Your task to perform on an android device: install app "Firefox Browser" Image 0: 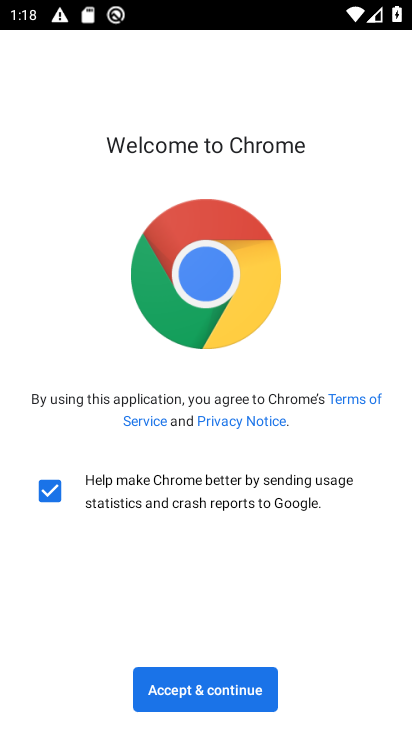
Step 0: press home button
Your task to perform on an android device: install app "Firefox Browser" Image 1: 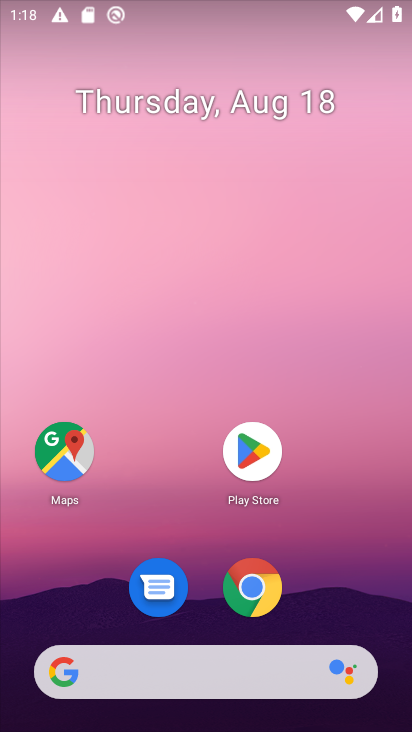
Step 1: click (239, 452)
Your task to perform on an android device: install app "Firefox Browser" Image 2: 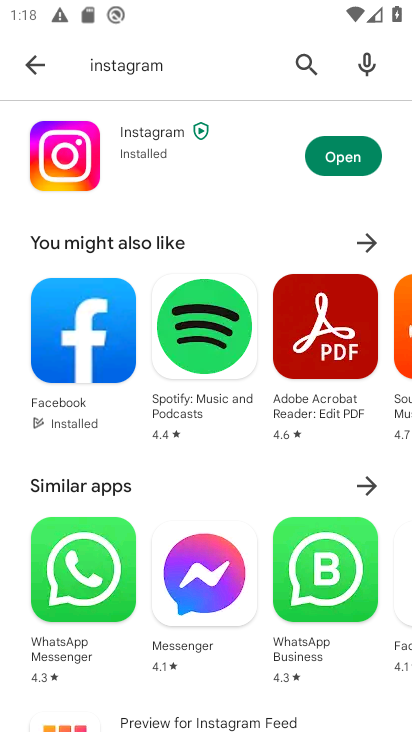
Step 2: click (302, 58)
Your task to perform on an android device: install app "Firefox Browser" Image 3: 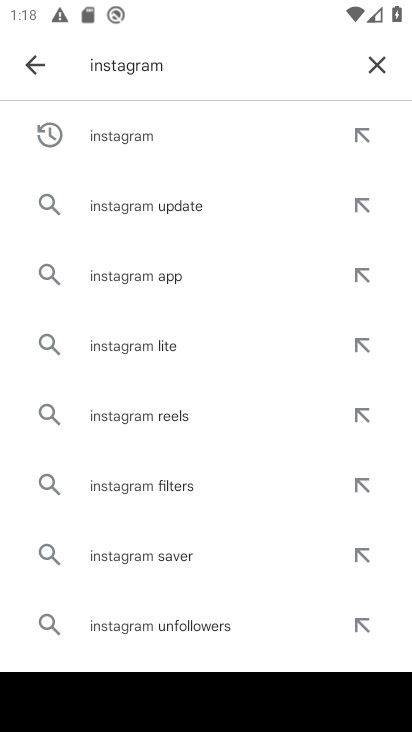
Step 3: click (381, 65)
Your task to perform on an android device: install app "Firefox Browser" Image 4: 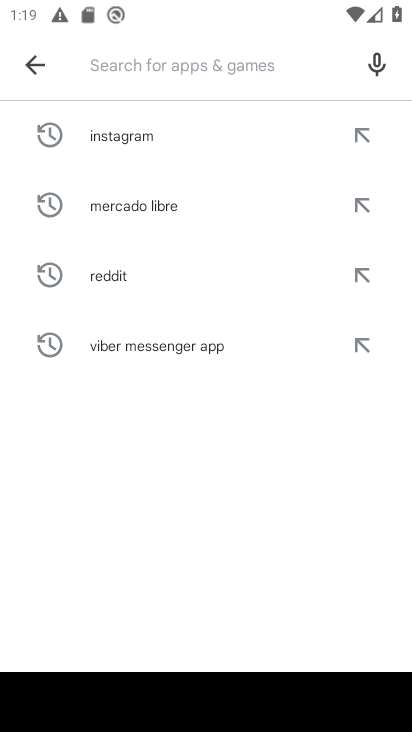
Step 4: type "Firefox Browser"
Your task to perform on an android device: install app "Firefox Browser" Image 5: 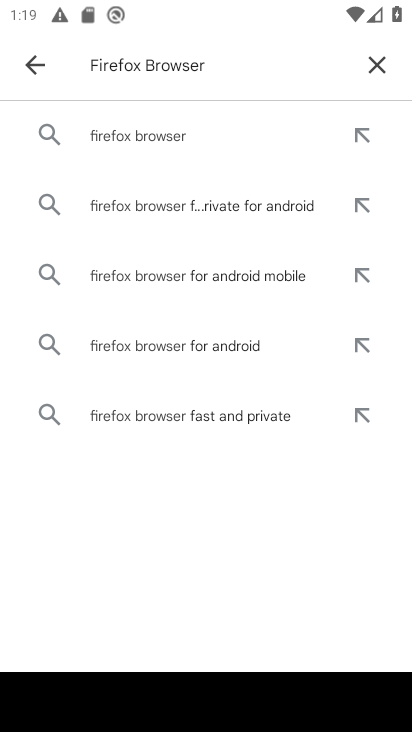
Step 5: click (166, 133)
Your task to perform on an android device: install app "Firefox Browser" Image 6: 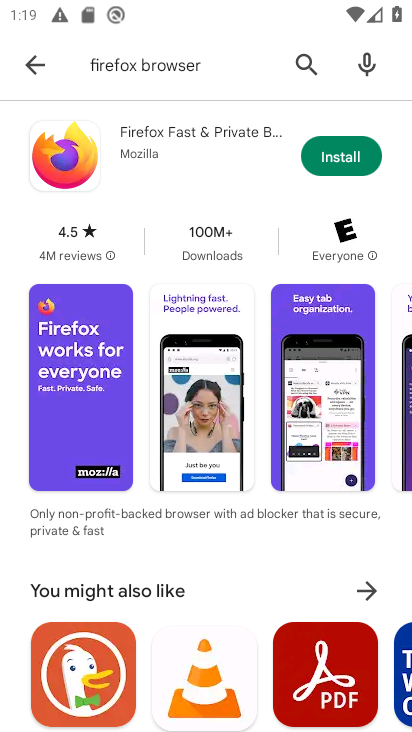
Step 6: click (324, 162)
Your task to perform on an android device: install app "Firefox Browser" Image 7: 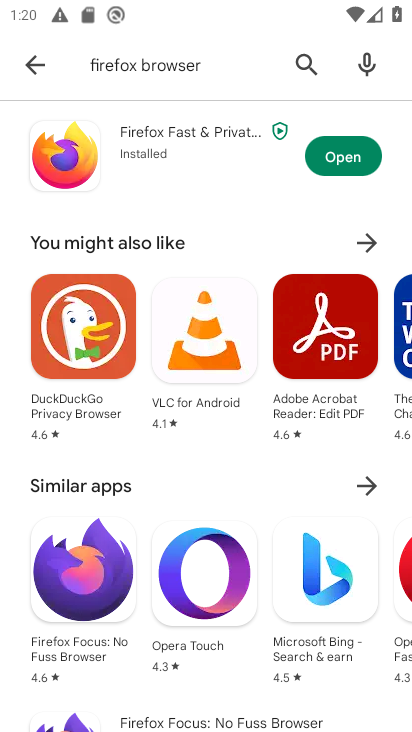
Step 7: task complete